Your task to perform on an android device: Play the last video I watched on Youtube Image 0: 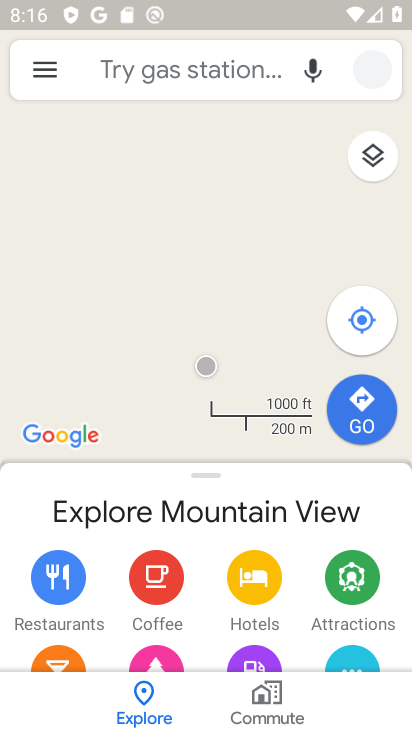
Step 0: press home button
Your task to perform on an android device: Play the last video I watched on Youtube Image 1: 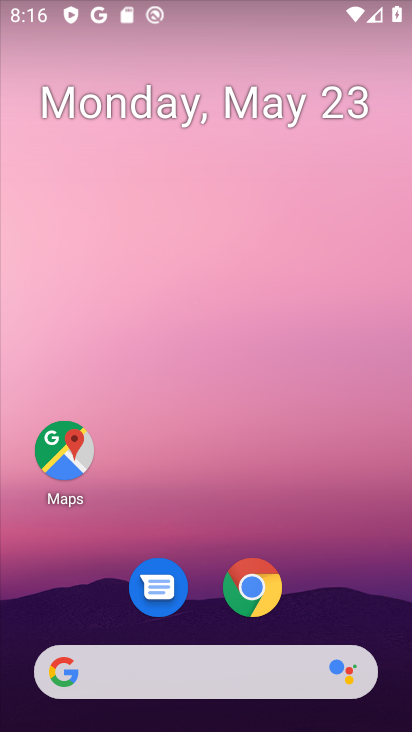
Step 1: drag from (193, 622) to (245, 64)
Your task to perform on an android device: Play the last video I watched on Youtube Image 2: 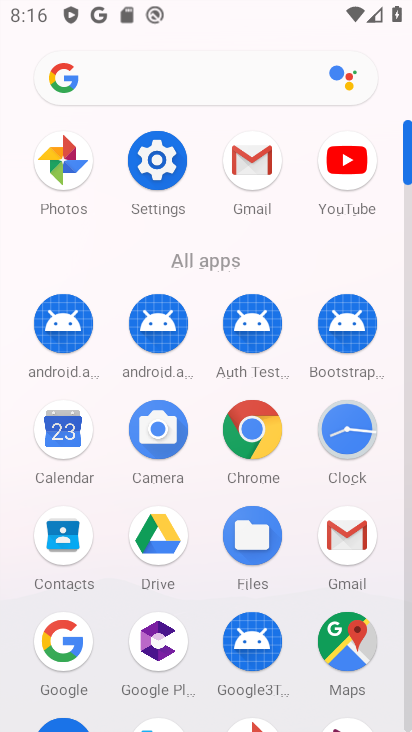
Step 2: click (361, 162)
Your task to perform on an android device: Play the last video I watched on Youtube Image 3: 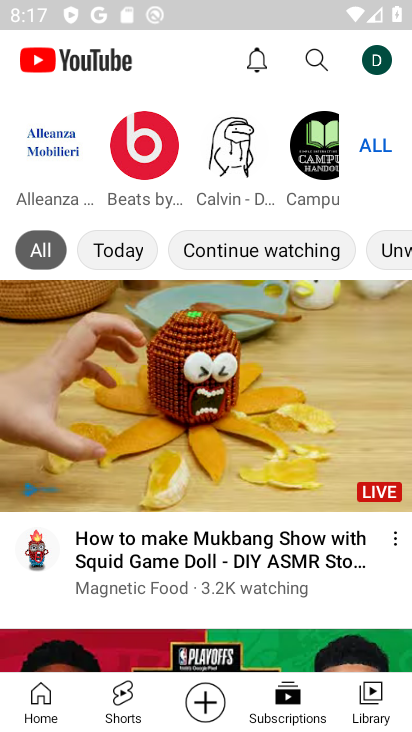
Step 3: click (364, 679)
Your task to perform on an android device: Play the last video I watched on Youtube Image 4: 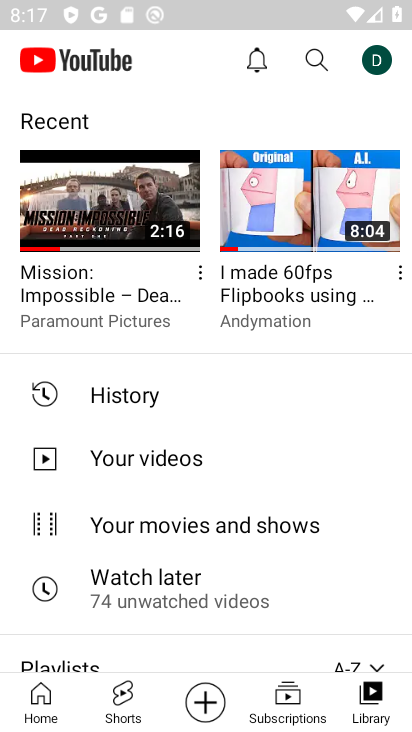
Step 4: click (93, 204)
Your task to perform on an android device: Play the last video I watched on Youtube Image 5: 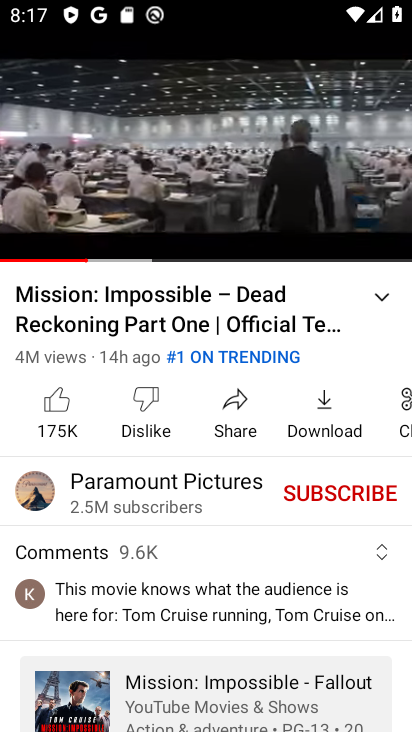
Step 5: task complete